Your task to perform on an android device: change the upload size in google photos Image 0: 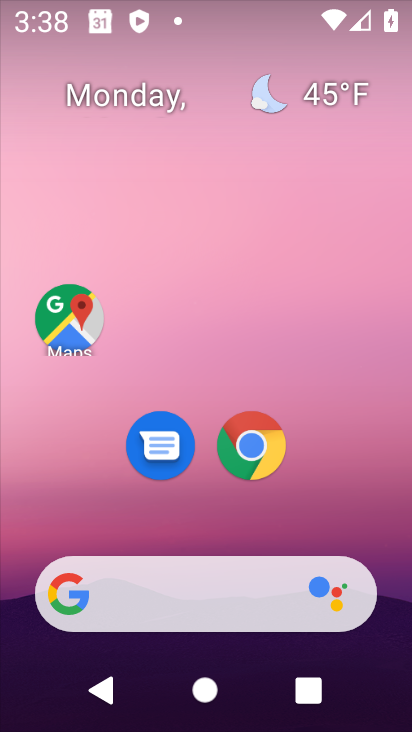
Step 0: drag from (270, 519) to (286, 1)
Your task to perform on an android device: change the upload size in google photos Image 1: 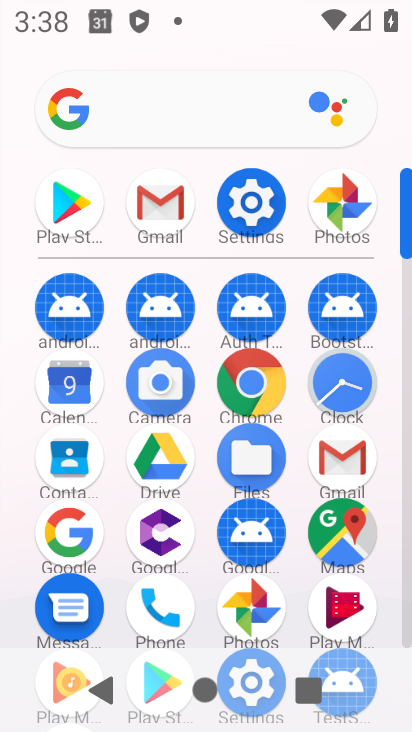
Step 1: click (327, 221)
Your task to perform on an android device: change the upload size in google photos Image 2: 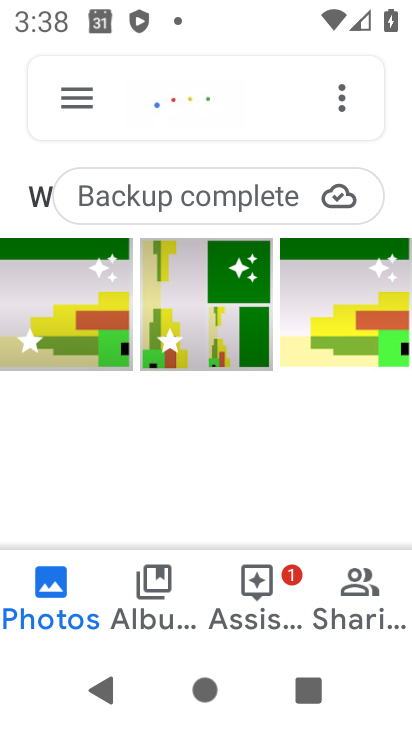
Step 2: click (81, 91)
Your task to perform on an android device: change the upload size in google photos Image 3: 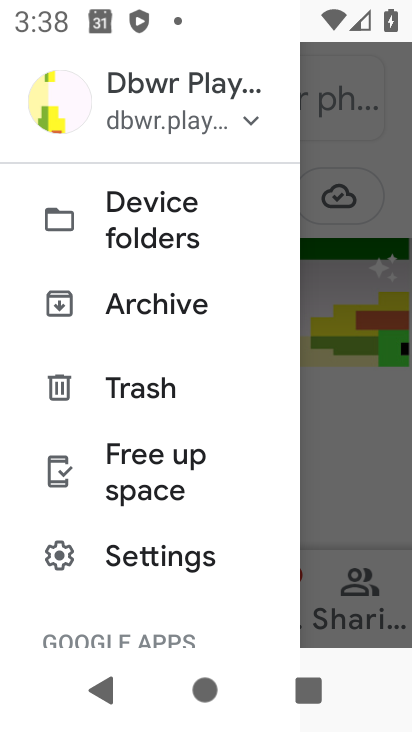
Step 3: click (185, 556)
Your task to perform on an android device: change the upload size in google photos Image 4: 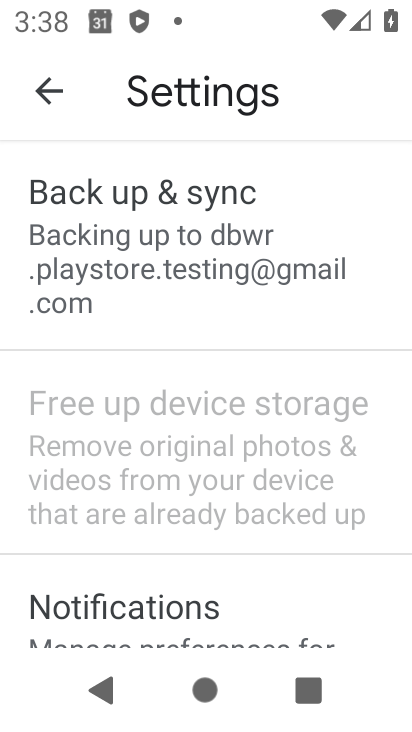
Step 4: click (139, 243)
Your task to perform on an android device: change the upload size in google photos Image 5: 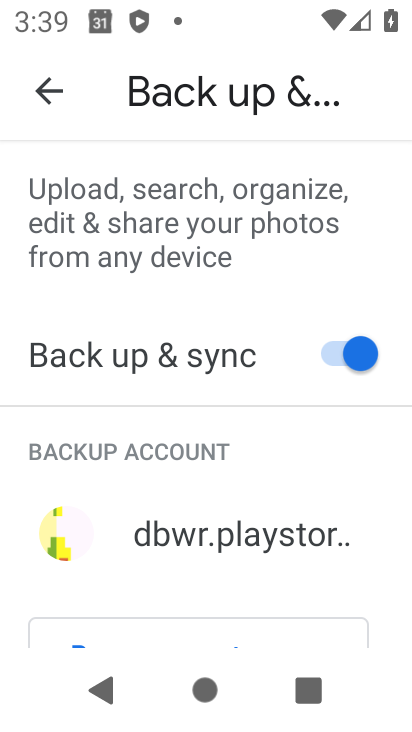
Step 5: drag from (256, 487) to (251, 293)
Your task to perform on an android device: change the upload size in google photos Image 6: 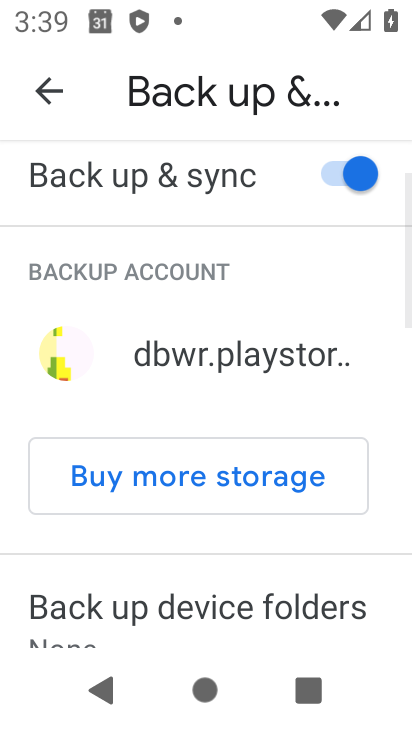
Step 6: drag from (210, 603) to (195, 350)
Your task to perform on an android device: change the upload size in google photos Image 7: 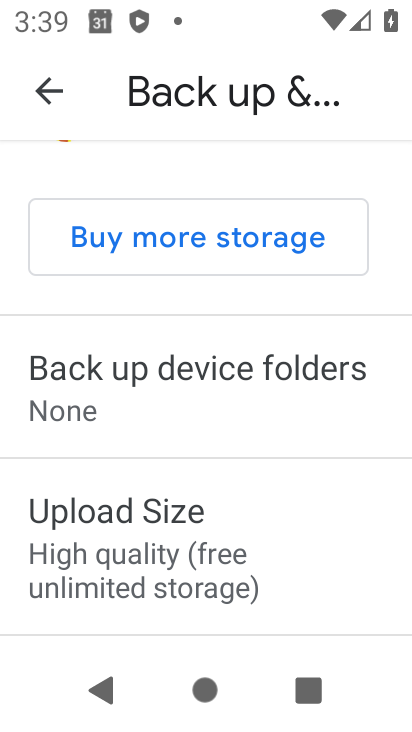
Step 7: click (249, 586)
Your task to perform on an android device: change the upload size in google photos Image 8: 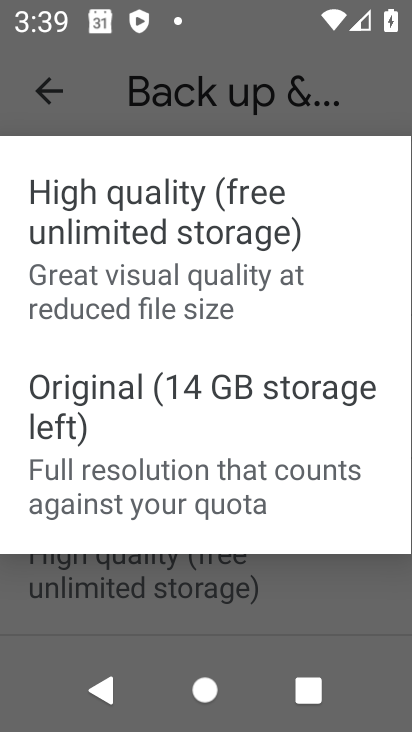
Step 8: click (165, 452)
Your task to perform on an android device: change the upload size in google photos Image 9: 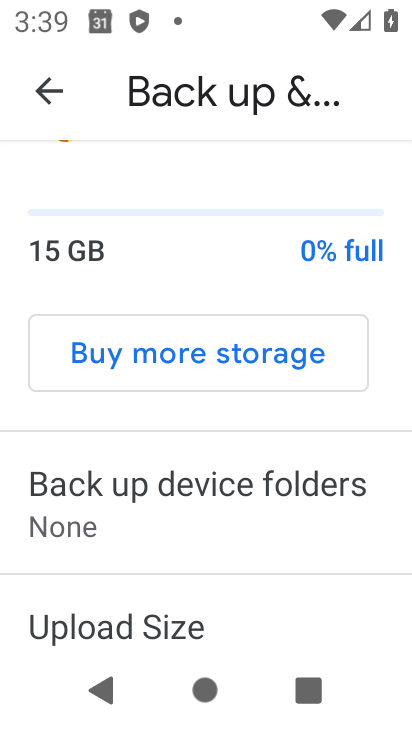
Step 9: task complete